Your task to perform on an android device: find which apps use the phone's location Image 0: 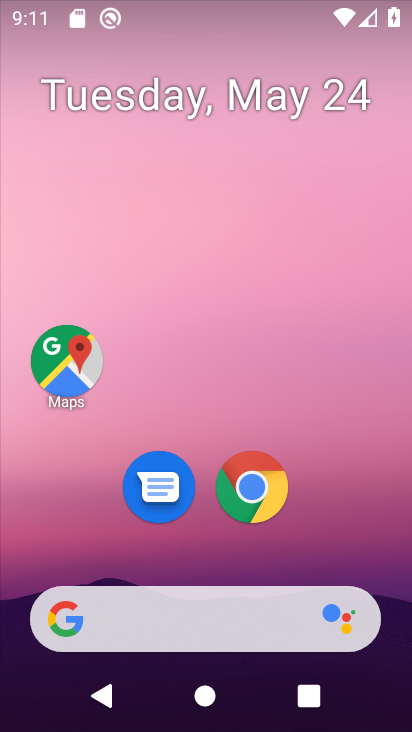
Step 0: drag from (204, 621) to (313, 47)
Your task to perform on an android device: find which apps use the phone's location Image 1: 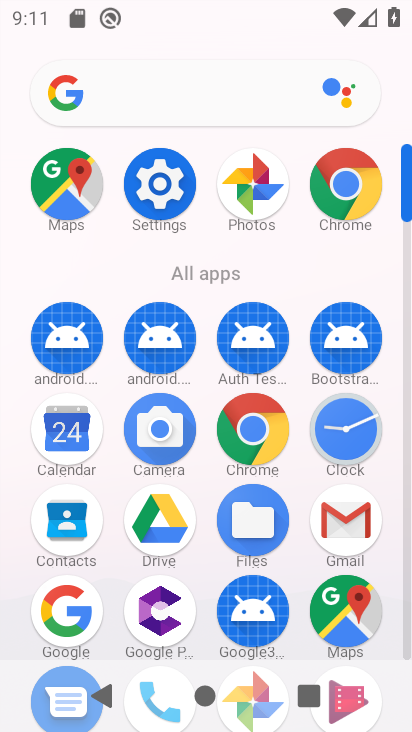
Step 1: click (167, 198)
Your task to perform on an android device: find which apps use the phone's location Image 2: 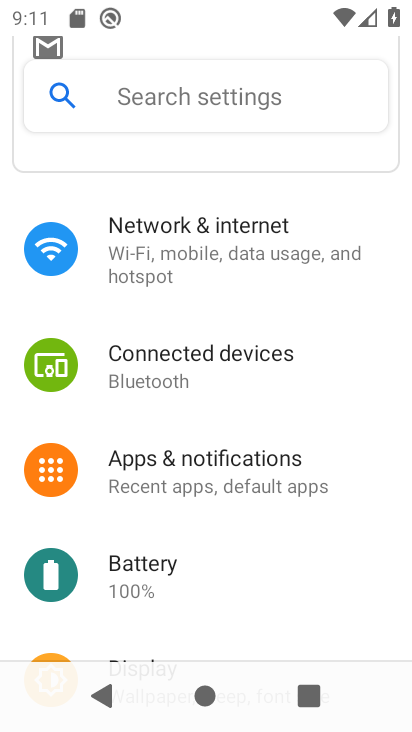
Step 2: drag from (248, 577) to (338, 106)
Your task to perform on an android device: find which apps use the phone's location Image 3: 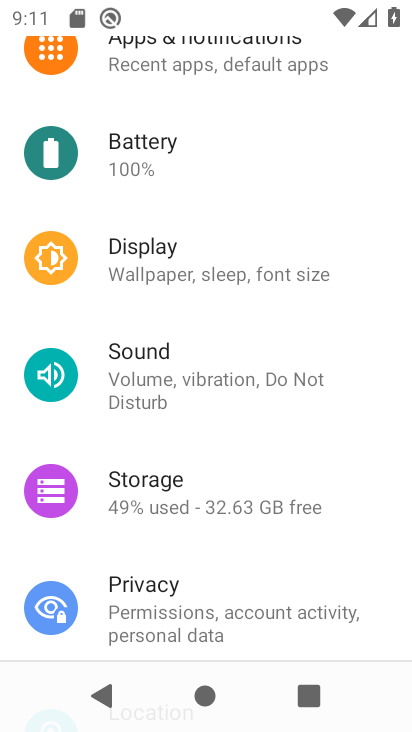
Step 3: drag from (210, 487) to (232, 71)
Your task to perform on an android device: find which apps use the phone's location Image 4: 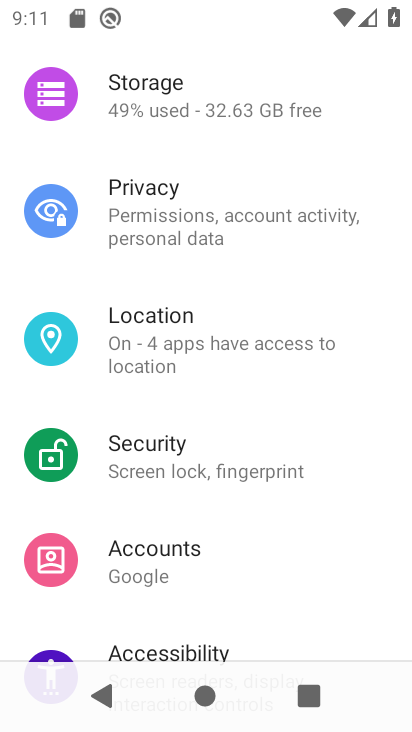
Step 4: click (140, 345)
Your task to perform on an android device: find which apps use the phone's location Image 5: 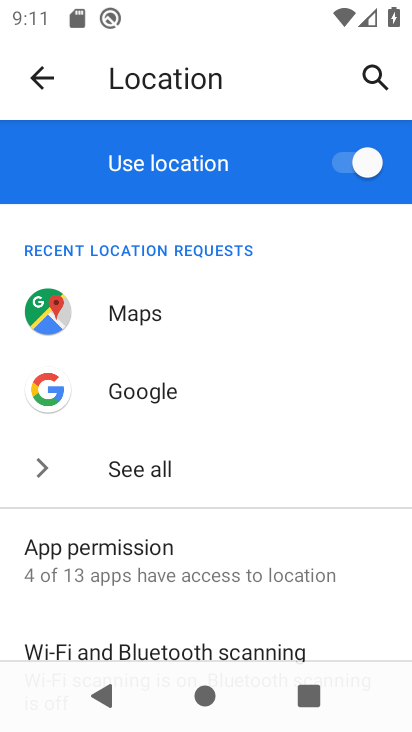
Step 5: click (127, 555)
Your task to perform on an android device: find which apps use the phone's location Image 6: 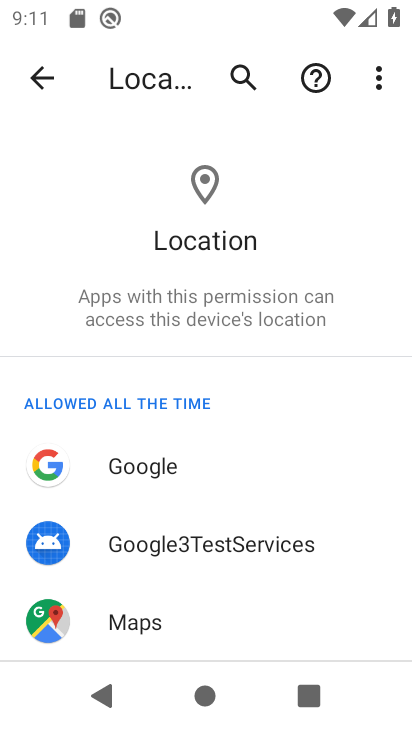
Step 6: drag from (226, 607) to (260, 168)
Your task to perform on an android device: find which apps use the phone's location Image 7: 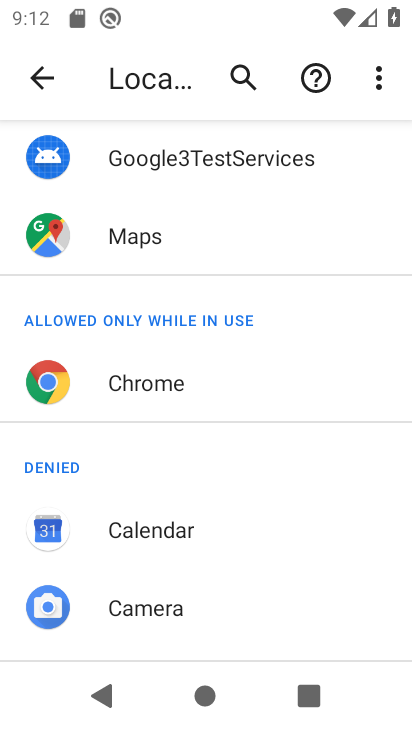
Step 7: drag from (202, 633) to (237, 114)
Your task to perform on an android device: find which apps use the phone's location Image 8: 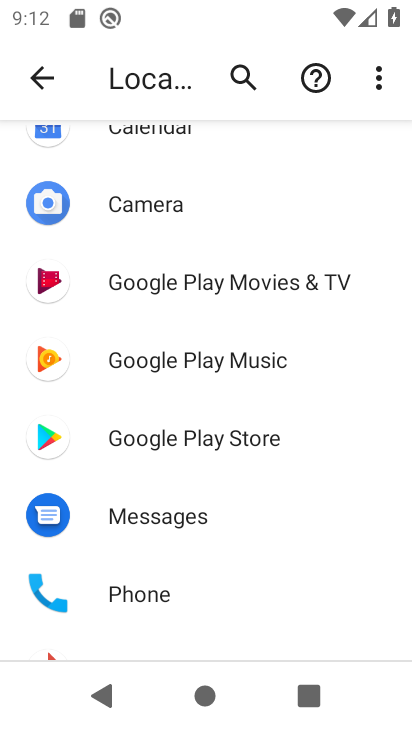
Step 8: click (157, 596)
Your task to perform on an android device: find which apps use the phone's location Image 9: 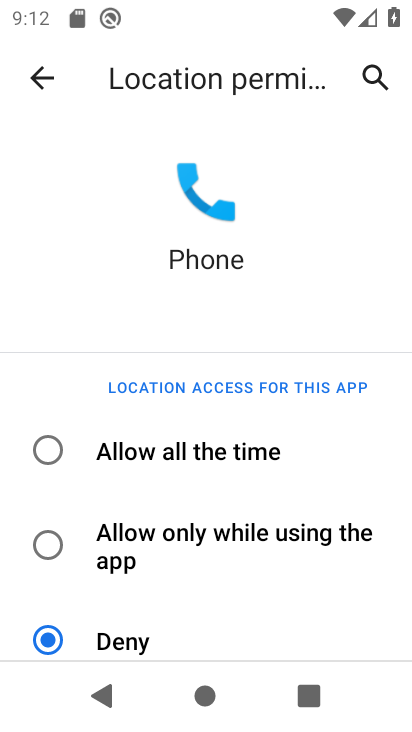
Step 9: task complete